Your task to perform on an android device: Search for seafood restaurants on Google Maps Image 0: 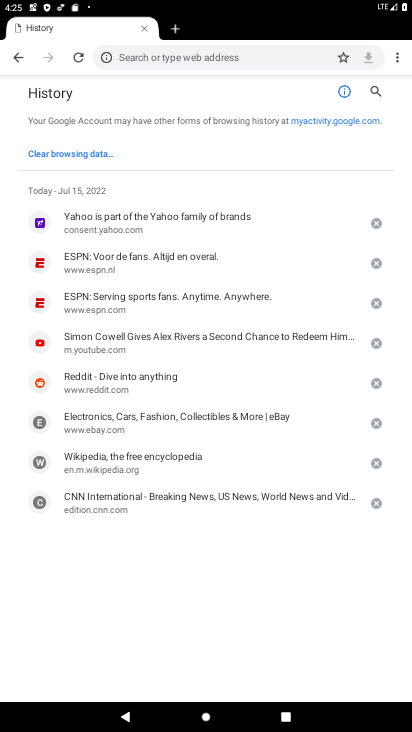
Step 0: press home button
Your task to perform on an android device: Search for seafood restaurants on Google Maps Image 1: 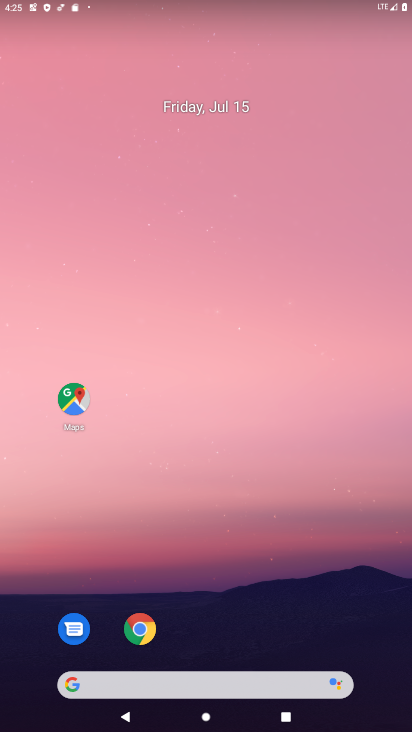
Step 1: click (71, 394)
Your task to perform on an android device: Search for seafood restaurants on Google Maps Image 2: 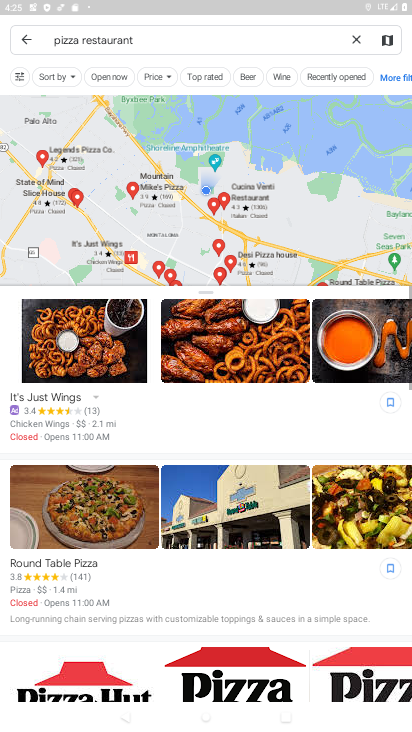
Step 2: click (357, 34)
Your task to perform on an android device: Search for seafood restaurants on Google Maps Image 3: 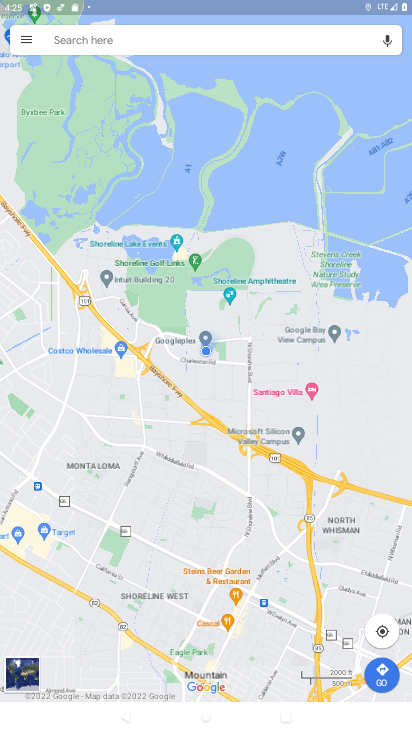
Step 3: click (183, 42)
Your task to perform on an android device: Search for seafood restaurants on Google Maps Image 4: 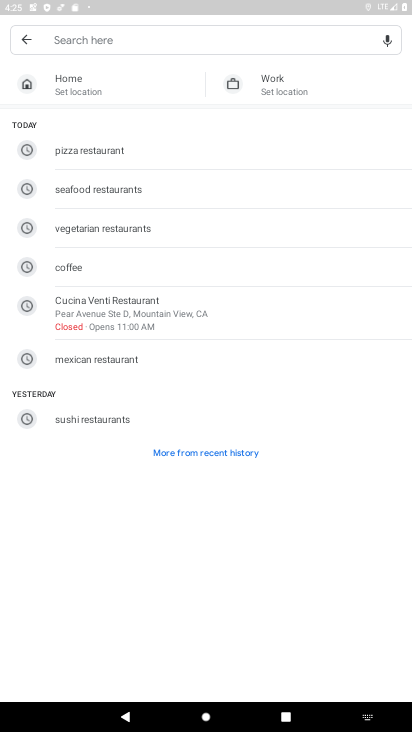
Step 4: click (96, 191)
Your task to perform on an android device: Search for seafood restaurants on Google Maps Image 5: 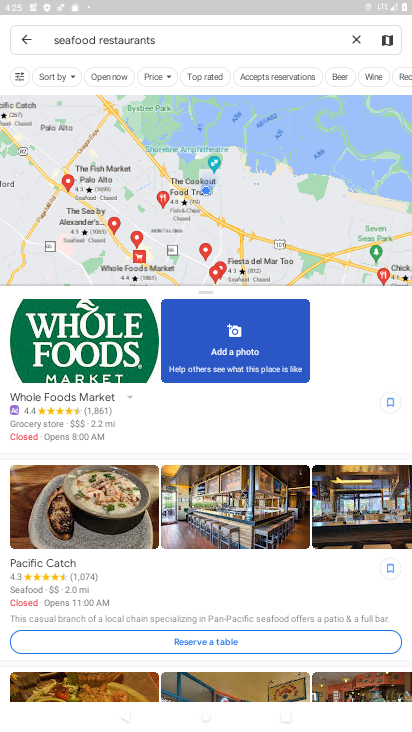
Step 5: task complete